Your task to perform on an android device: turn on priority inbox in the gmail app Image 0: 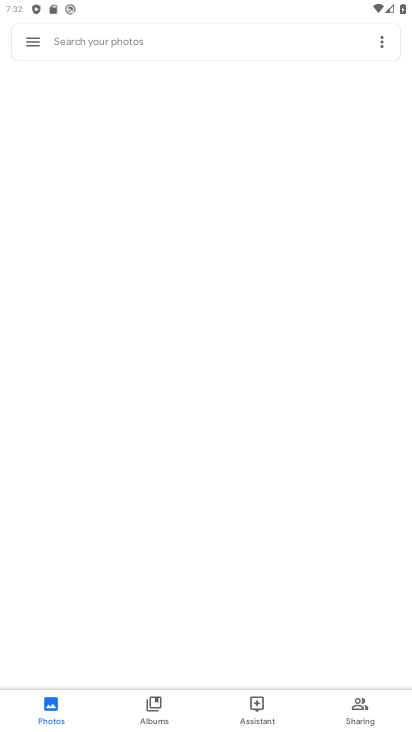
Step 0: drag from (272, 693) to (247, 177)
Your task to perform on an android device: turn on priority inbox in the gmail app Image 1: 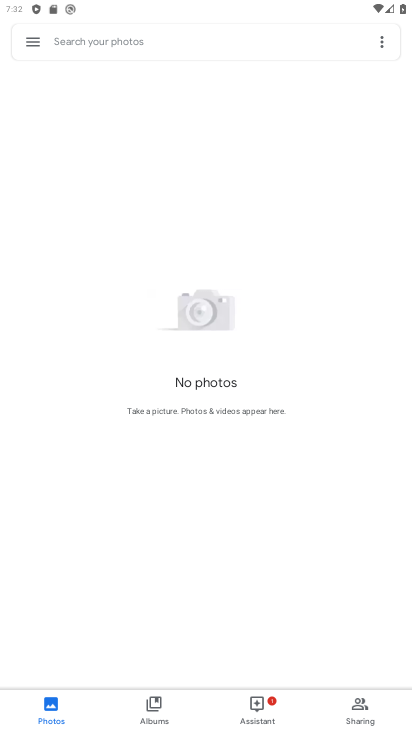
Step 1: press back button
Your task to perform on an android device: turn on priority inbox in the gmail app Image 2: 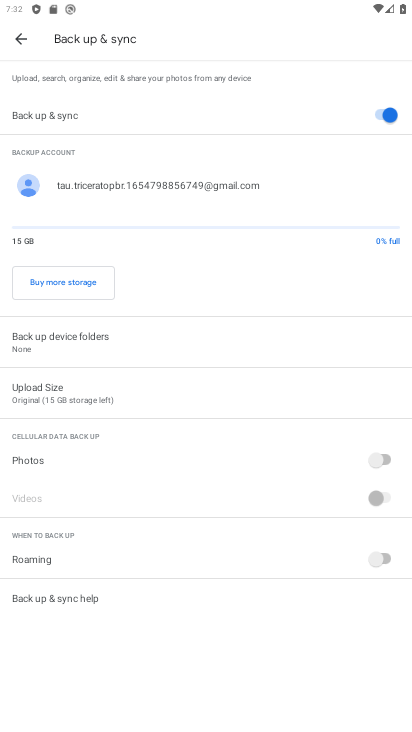
Step 2: click (17, 35)
Your task to perform on an android device: turn on priority inbox in the gmail app Image 3: 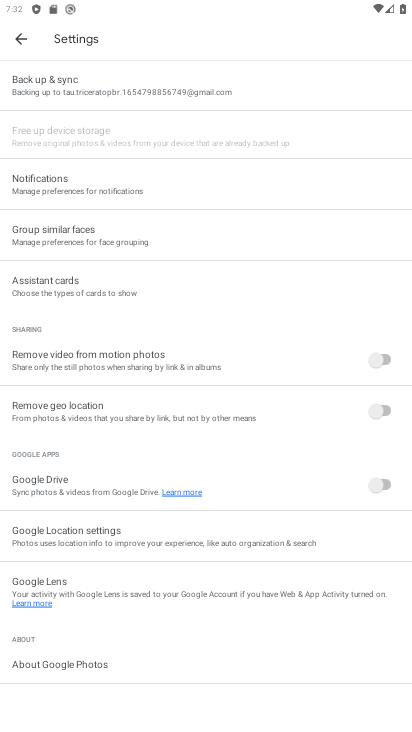
Step 3: click (13, 37)
Your task to perform on an android device: turn on priority inbox in the gmail app Image 4: 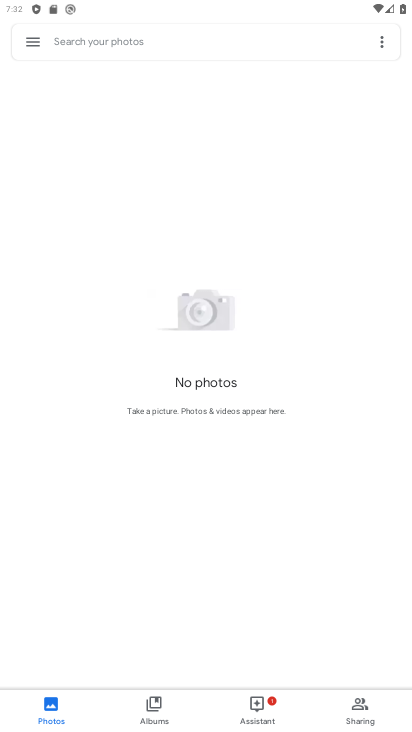
Step 4: click (34, 40)
Your task to perform on an android device: turn on priority inbox in the gmail app Image 5: 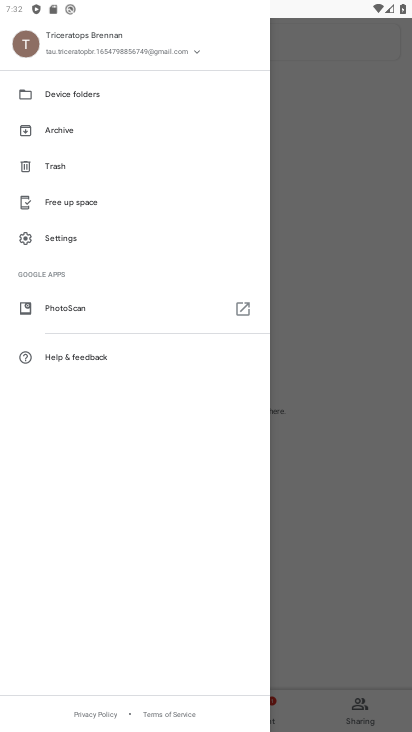
Step 5: click (60, 232)
Your task to perform on an android device: turn on priority inbox in the gmail app Image 6: 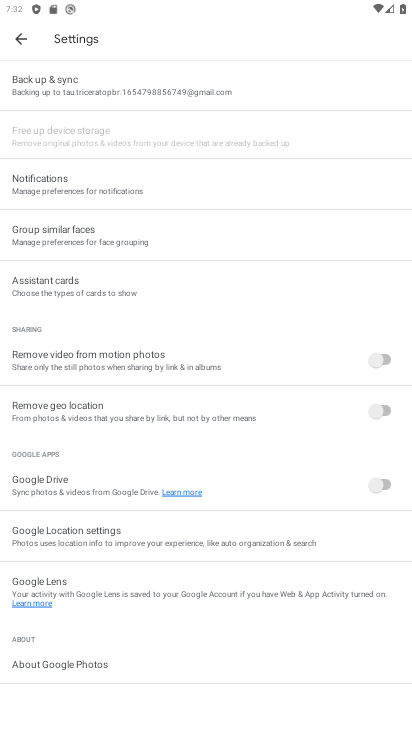
Step 6: drag from (92, 534) to (144, 264)
Your task to perform on an android device: turn on priority inbox in the gmail app Image 7: 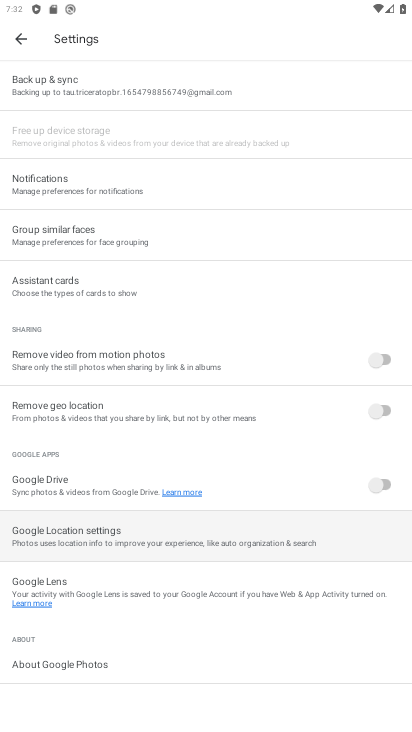
Step 7: drag from (122, 508) to (162, 150)
Your task to perform on an android device: turn on priority inbox in the gmail app Image 8: 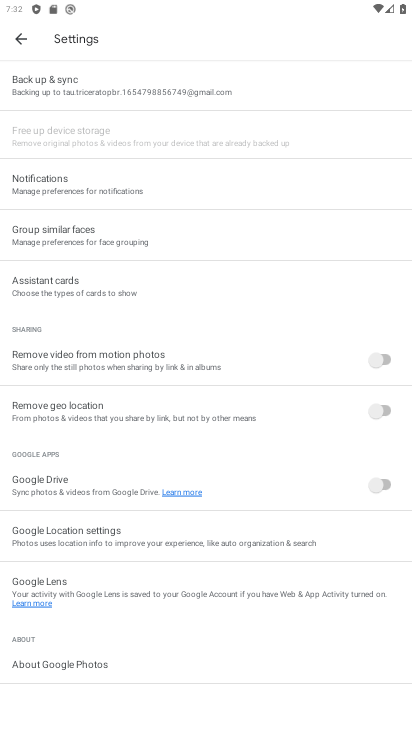
Step 8: drag from (95, 547) to (110, 182)
Your task to perform on an android device: turn on priority inbox in the gmail app Image 9: 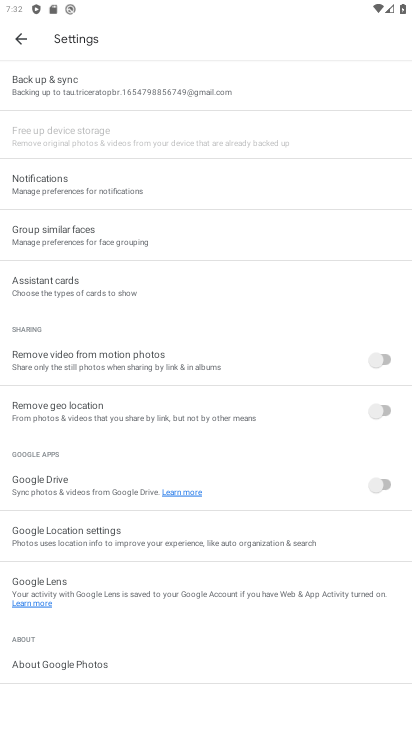
Step 9: drag from (45, 541) to (55, 375)
Your task to perform on an android device: turn on priority inbox in the gmail app Image 10: 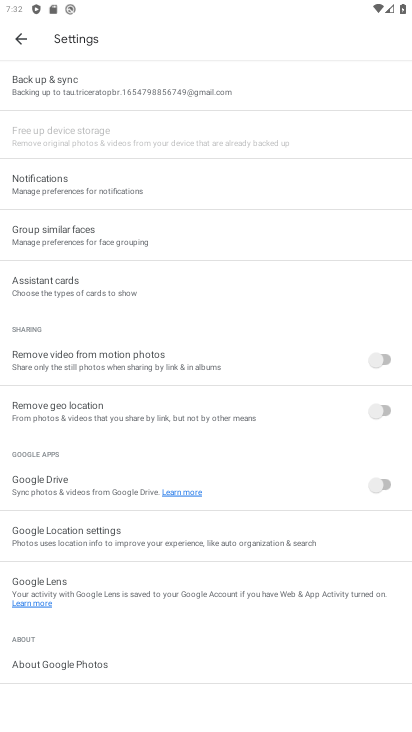
Step 10: click (19, 39)
Your task to perform on an android device: turn on priority inbox in the gmail app Image 11: 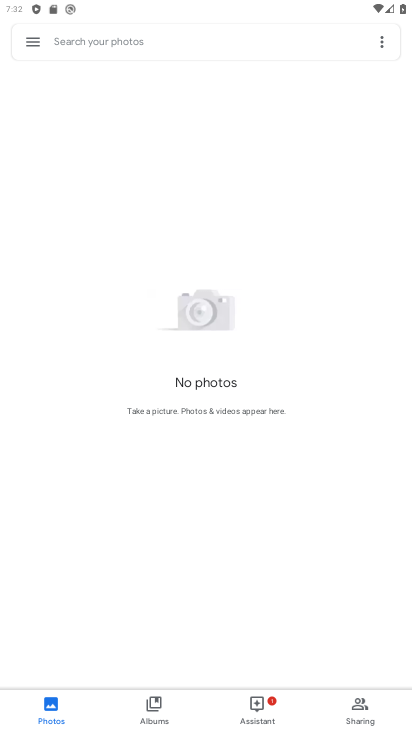
Step 11: click (17, 41)
Your task to perform on an android device: turn on priority inbox in the gmail app Image 12: 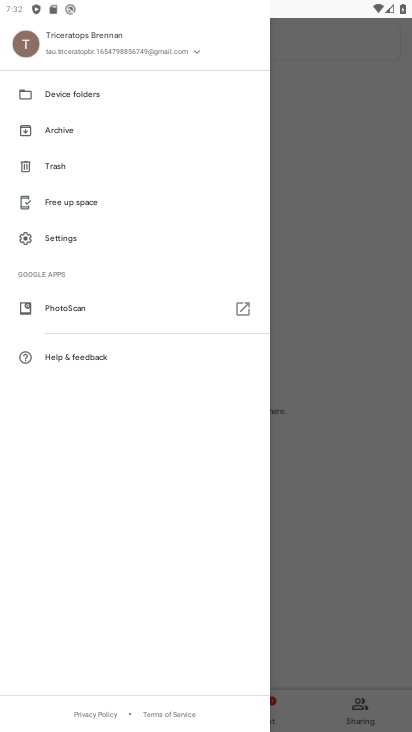
Step 12: click (63, 220)
Your task to perform on an android device: turn on priority inbox in the gmail app Image 13: 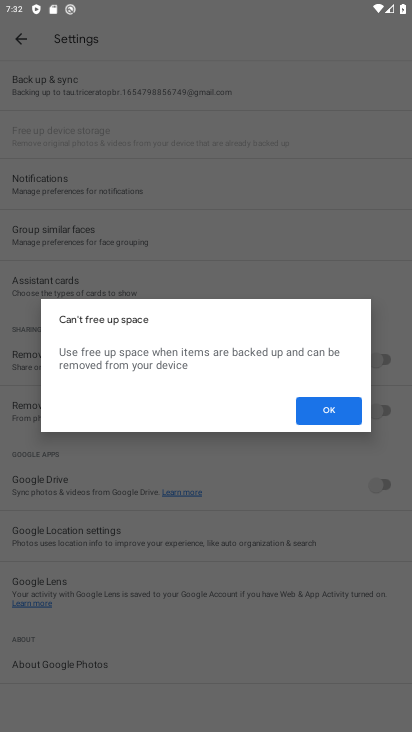
Step 13: click (335, 415)
Your task to perform on an android device: turn on priority inbox in the gmail app Image 14: 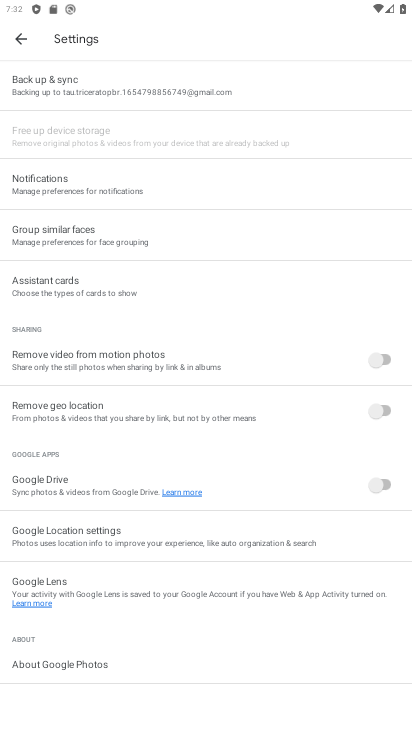
Step 14: drag from (142, 381) to (183, 9)
Your task to perform on an android device: turn on priority inbox in the gmail app Image 15: 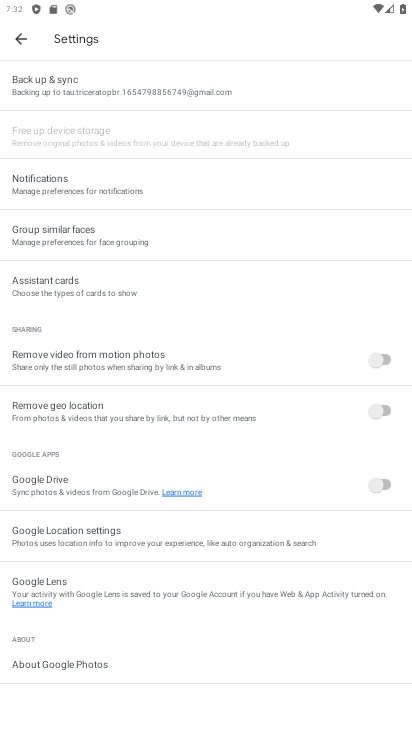
Step 15: drag from (115, 360) to (112, 183)
Your task to perform on an android device: turn on priority inbox in the gmail app Image 16: 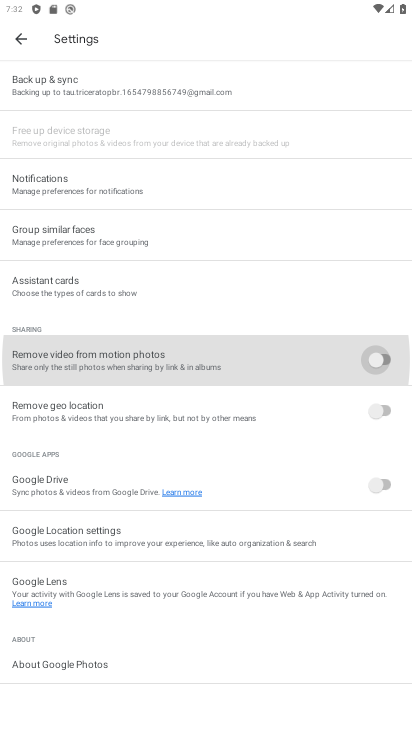
Step 16: drag from (124, 576) to (140, 197)
Your task to perform on an android device: turn on priority inbox in the gmail app Image 17: 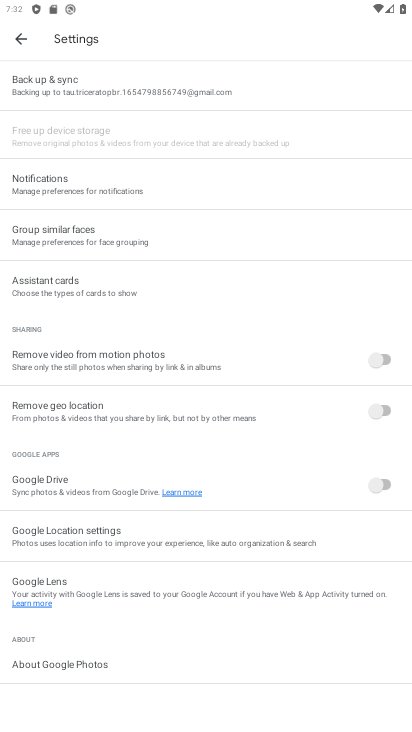
Step 17: drag from (109, 102) to (143, 177)
Your task to perform on an android device: turn on priority inbox in the gmail app Image 18: 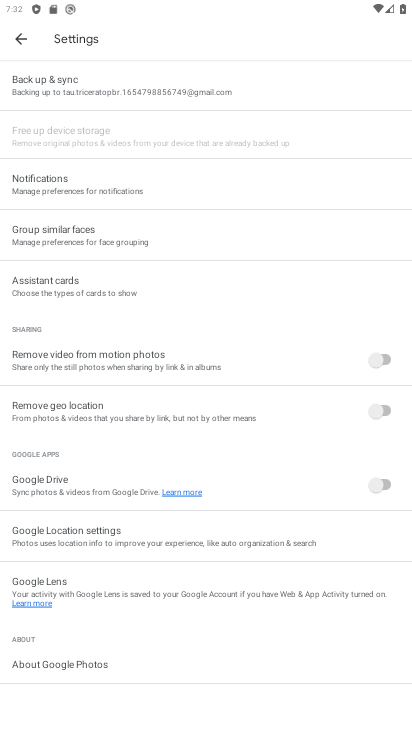
Step 18: drag from (76, 661) to (60, 54)
Your task to perform on an android device: turn on priority inbox in the gmail app Image 19: 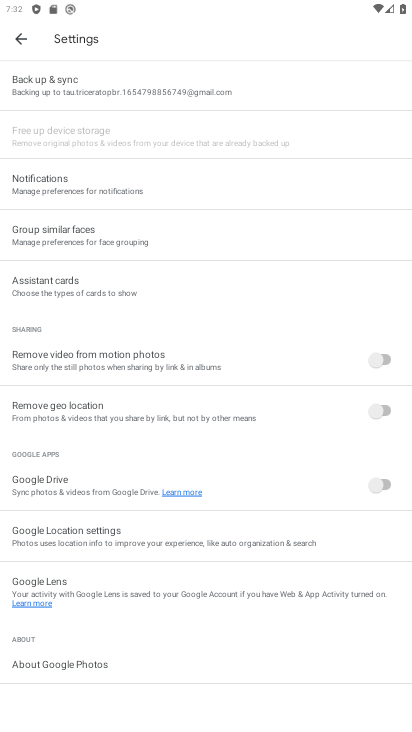
Step 19: click (26, 48)
Your task to perform on an android device: turn on priority inbox in the gmail app Image 20: 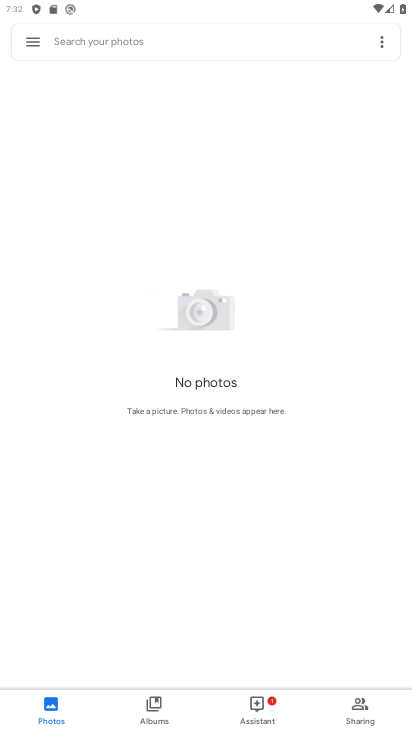
Step 20: click (27, 39)
Your task to perform on an android device: turn on priority inbox in the gmail app Image 21: 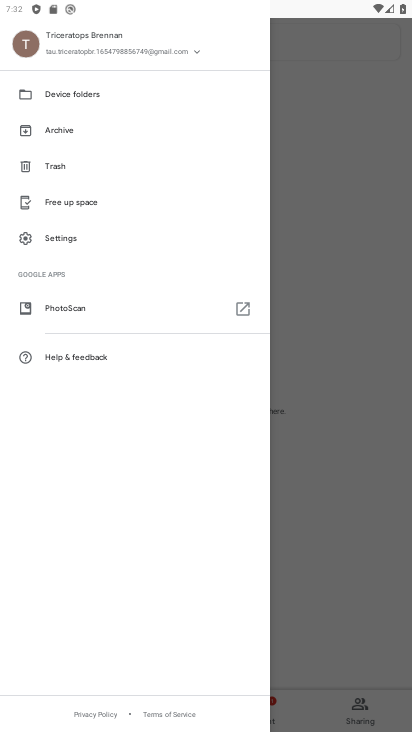
Step 21: click (55, 232)
Your task to perform on an android device: turn on priority inbox in the gmail app Image 22: 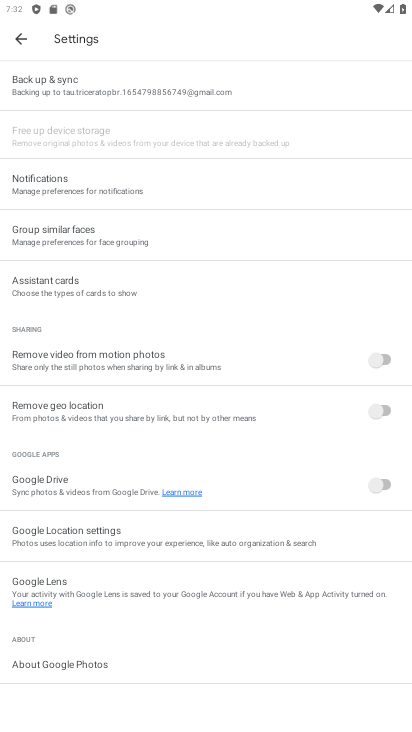
Step 22: click (45, 180)
Your task to perform on an android device: turn on priority inbox in the gmail app Image 23: 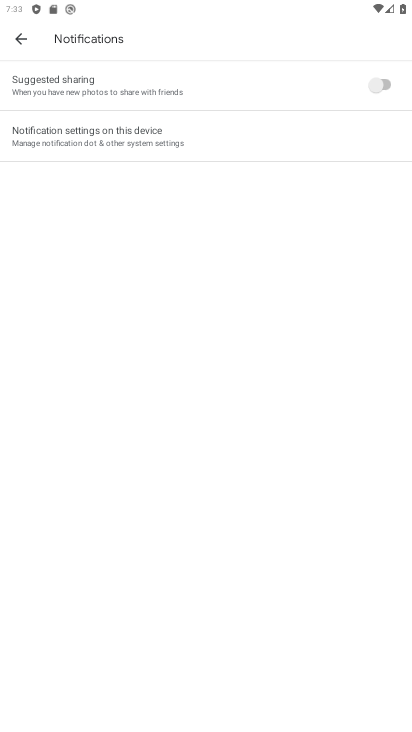
Step 23: click (26, 44)
Your task to perform on an android device: turn on priority inbox in the gmail app Image 24: 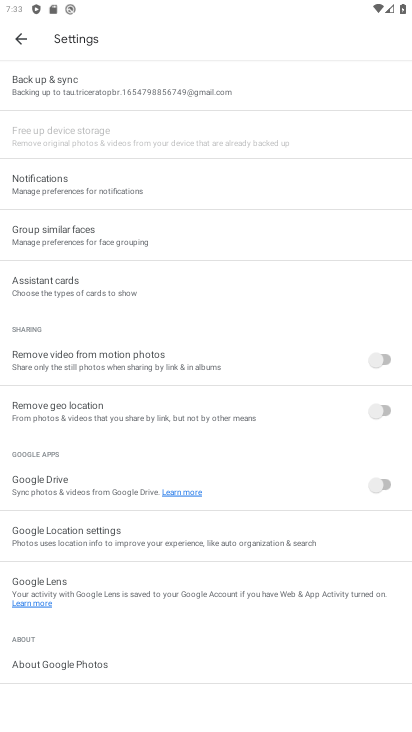
Step 24: click (22, 47)
Your task to perform on an android device: turn on priority inbox in the gmail app Image 25: 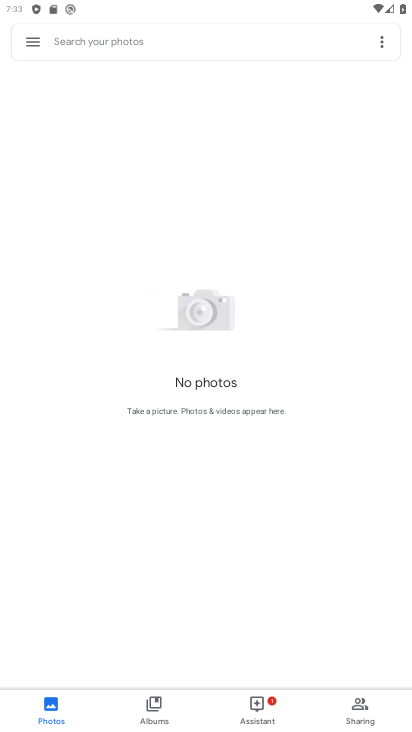
Step 25: click (22, 47)
Your task to perform on an android device: turn on priority inbox in the gmail app Image 26: 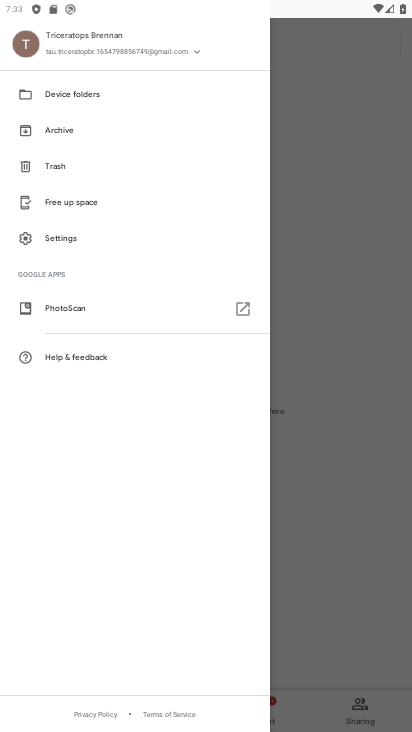
Step 26: press home button
Your task to perform on an android device: turn on priority inbox in the gmail app Image 27: 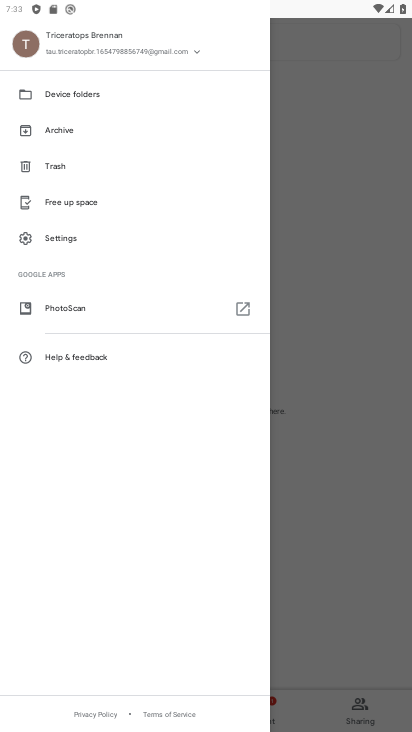
Step 27: press home button
Your task to perform on an android device: turn on priority inbox in the gmail app Image 28: 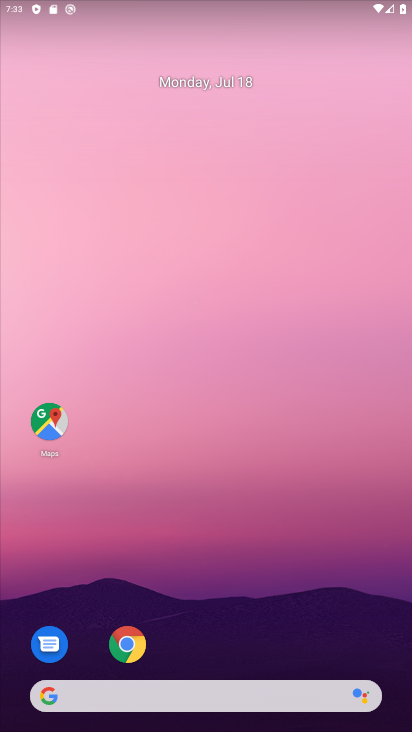
Step 28: press back button
Your task to perform on an android device: turn on priority inbox in the gmail app Image 29: 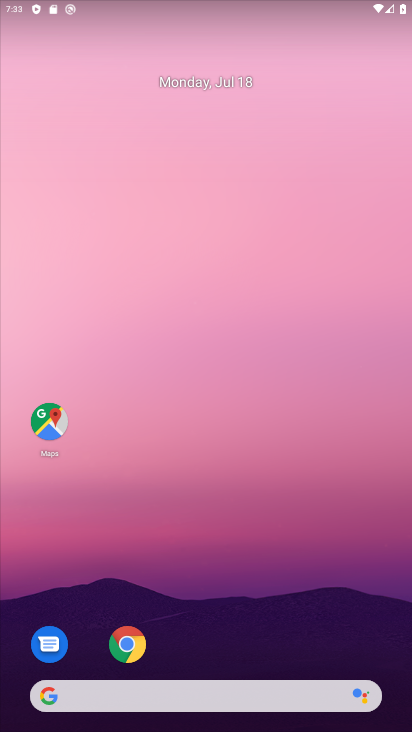
Step 29: drag from (256, 668) to (224, 146)
Your task to perform on an android device: turn on priority inbox in the gmail app Image 30: 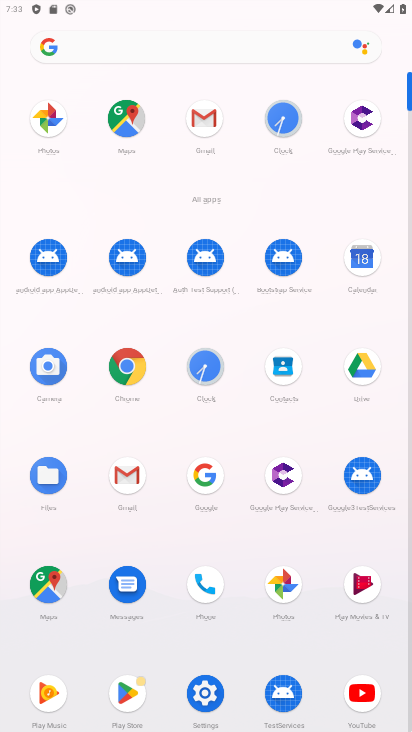
Step 30: click (125, 480)
Your task to perform on an android device: turn on priority inbox in the gmail app Image 31: 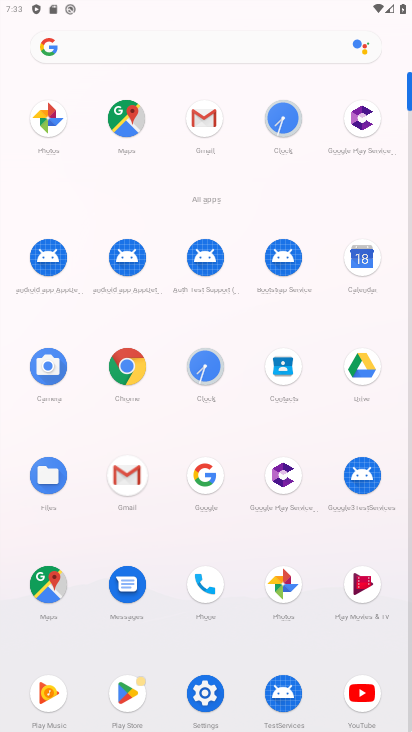
Step 31: click (125, 480)
Your task to perform on an android device: turn on priority inbox in the gmail app Image 32: 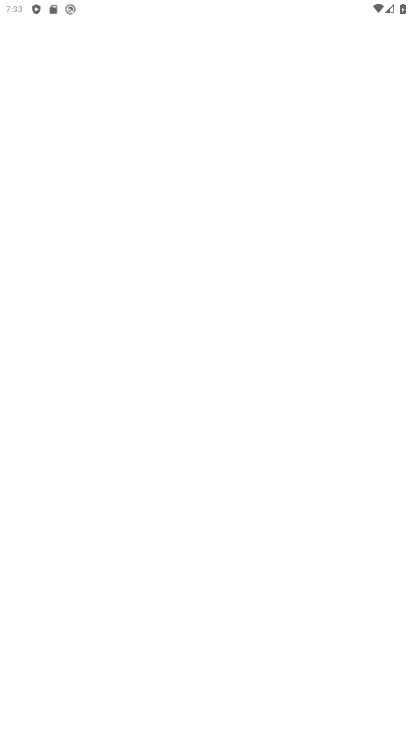
Step 32: click (125, 480)
Your task to perform on an android device: turn on priority inbox in the gmail app Image 33: 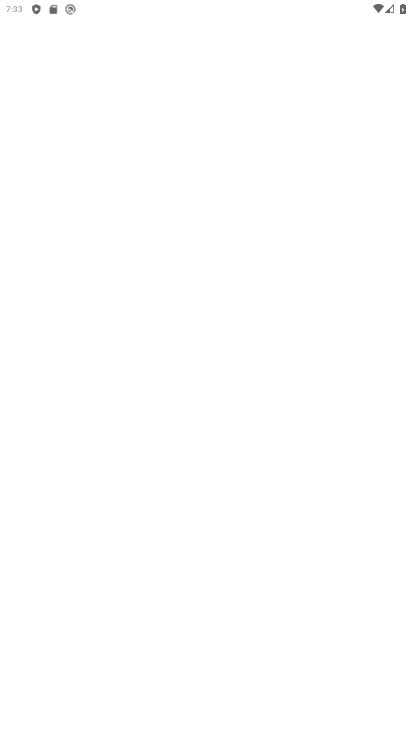
Step 33: click (125, 480)
Your task to perform on an android device: turn on priority inbox in the gmail app Image 34: 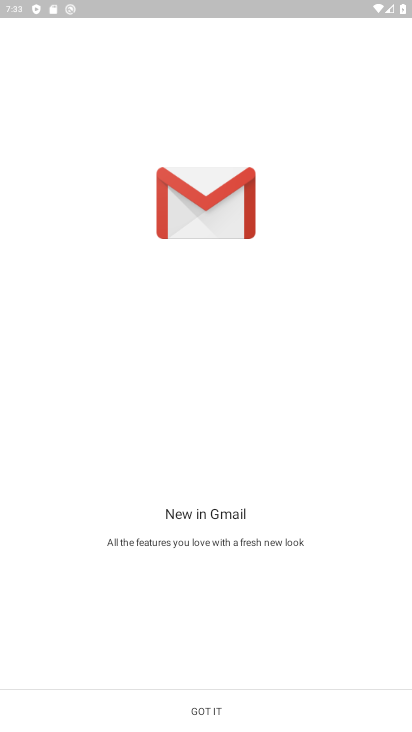
Step 34: click (216, 708)
Your task to perform on an android device: turn on priority inbox in the gmail app Image 35: 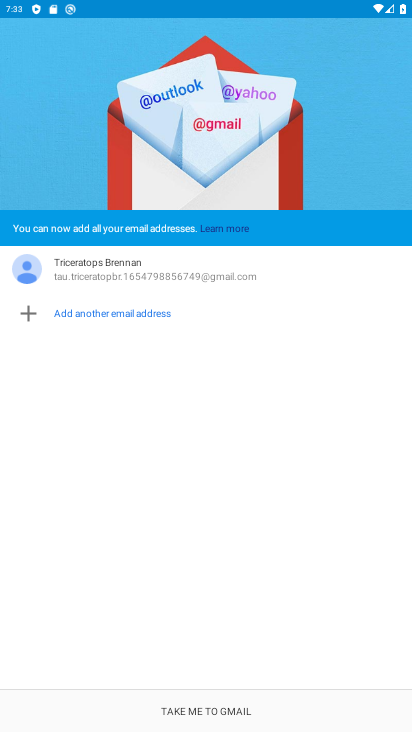
Step 35: click (222, 710)
Your task to perform on an android device: turn on priority inbox in the gmail app Image 36: 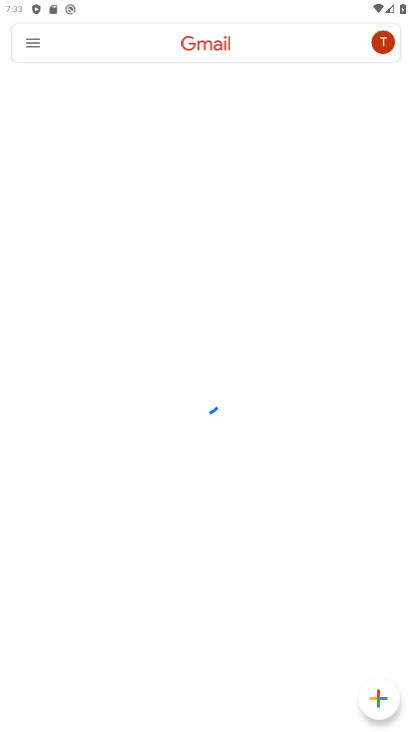
Step 36: click (30, 40)
Your task to perform on an android device: turn on priority inbox in the gmail app Image 37: 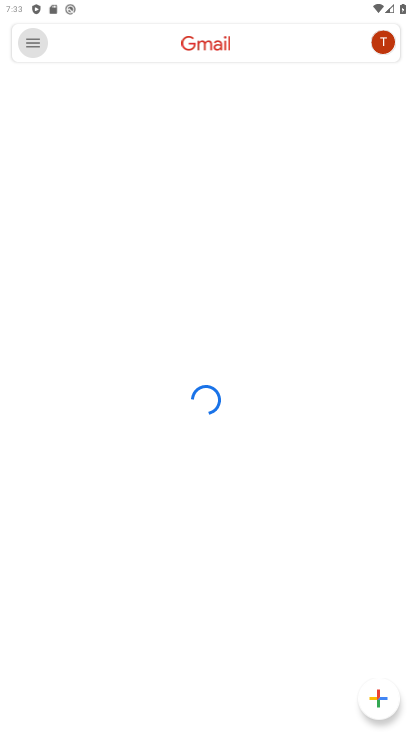
Step 37: click (30, 40)
Your task to perform on an android device: turn on priority inbox in the gmail app Image 38: 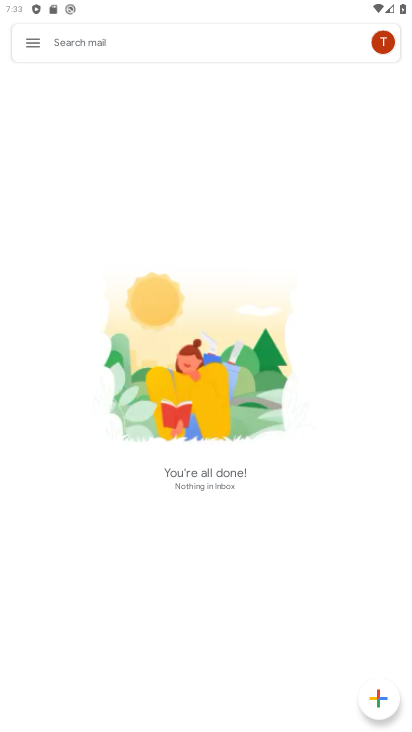
Step 38: click (37, 44)
Your task to perform on an android device: turn on priority inbox in the gmail app Image 39: 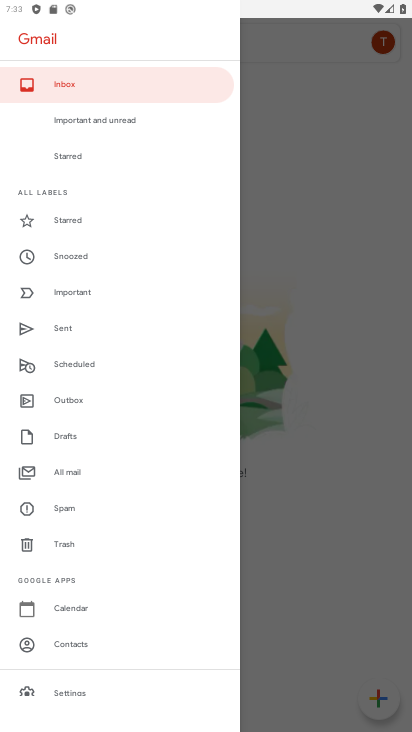
Step 39: click (74, 689)
Your task to perform on an android device: turn on priority inbox in the gmail app Image 40: 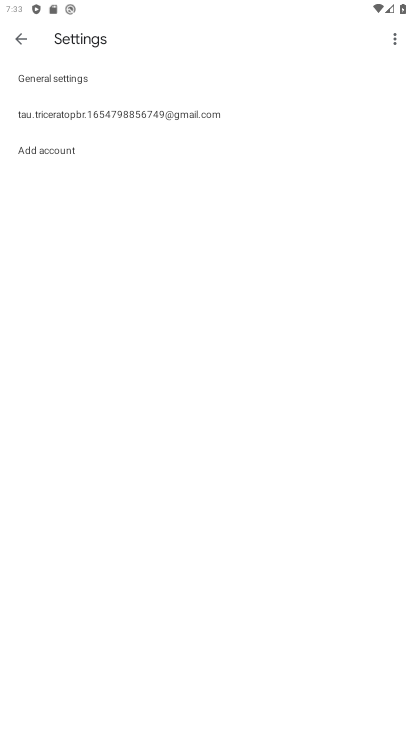
Step 40: click (95, 118)
Your task to perform on an android device: turn on priority inbox in the gmail app Image 41: 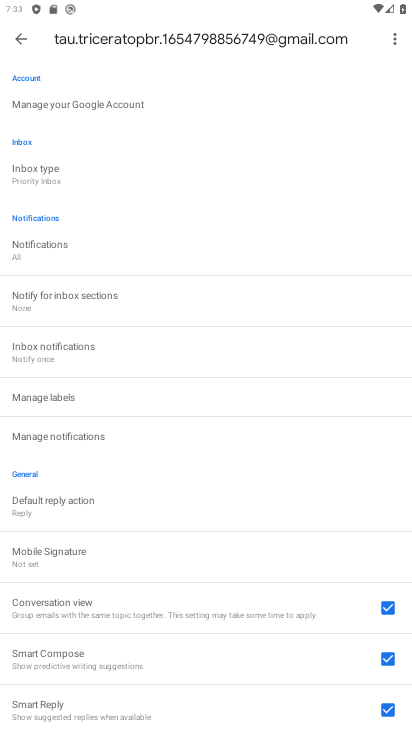
Step 41: task complete